Your task to perform on an android device: Open Chrome and go to the settings page Image 0: 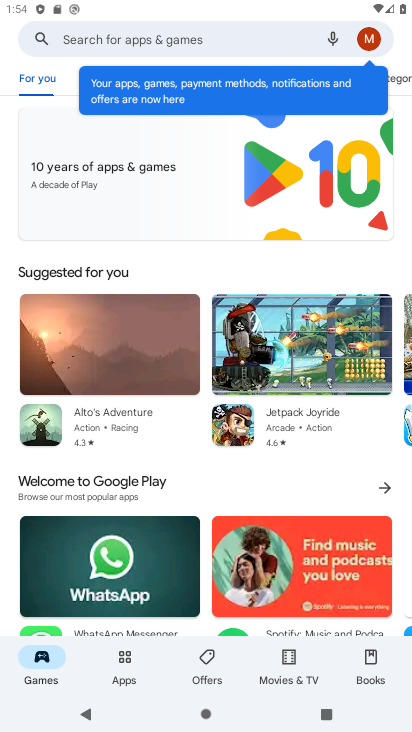
Step 0: press home button
Your task to perform on an android device: Open Chrome and go to the settings page Image 1: 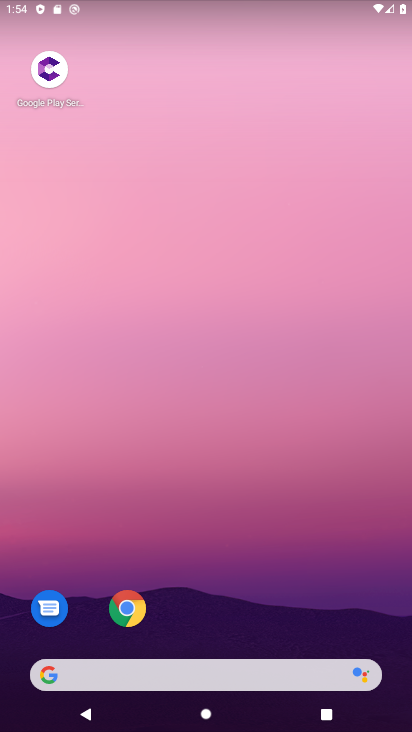
Step 1: drag from (302, 570) to (273, 208)
Your task to perform on an android device: Open Chrome and go to the settings page Image 2: 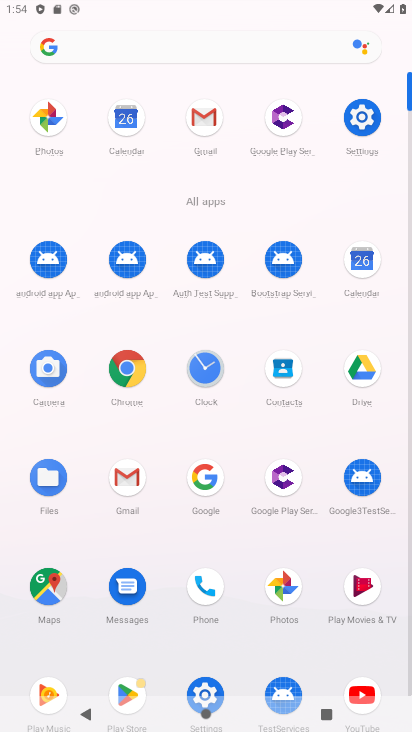
Step 2: click (363, 117)
Your task to perform on an android device: Open Chrome and go to the settings page Image 3: 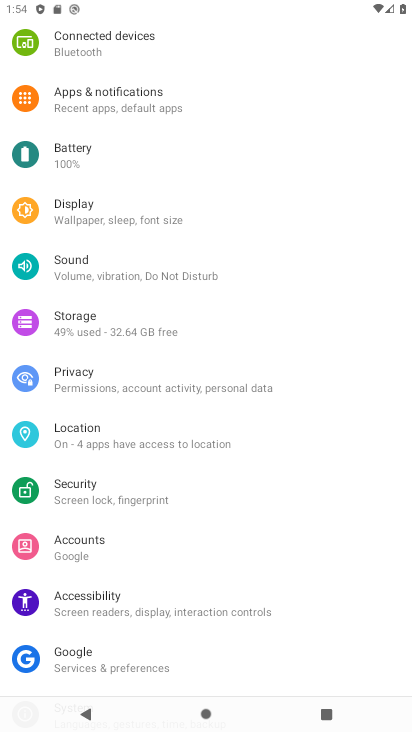
Step 3: task complete